Your task to perform on an android device: Open the map Image 0: 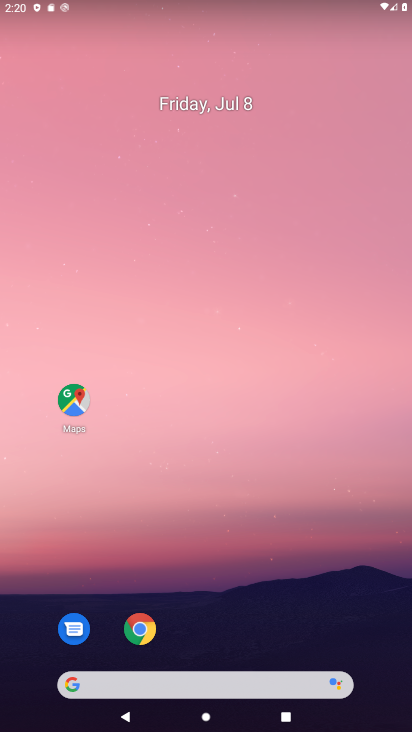
Step 0: click (63, 395)
Your task to perform on an android device: Open the map Image 1: 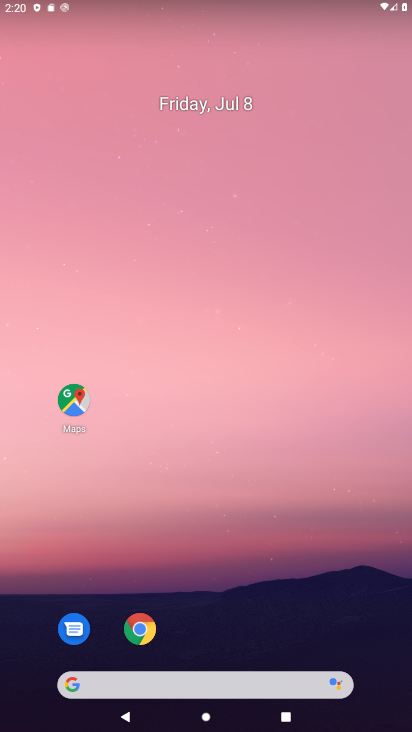
Step 1: click (63, 395)
Your task to perform on an android device: Open the map Image 2: 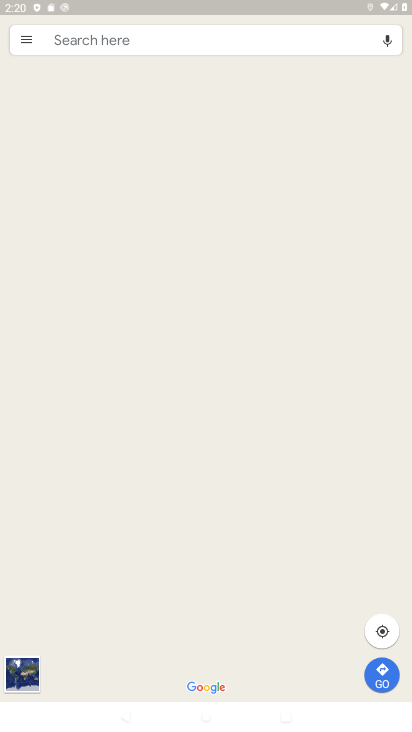
Step 2: task complete